Your task to perform on an android device: Clear the cart on walmart.com. Add "alienware area 51" to the cart on walmart.com Image 0: 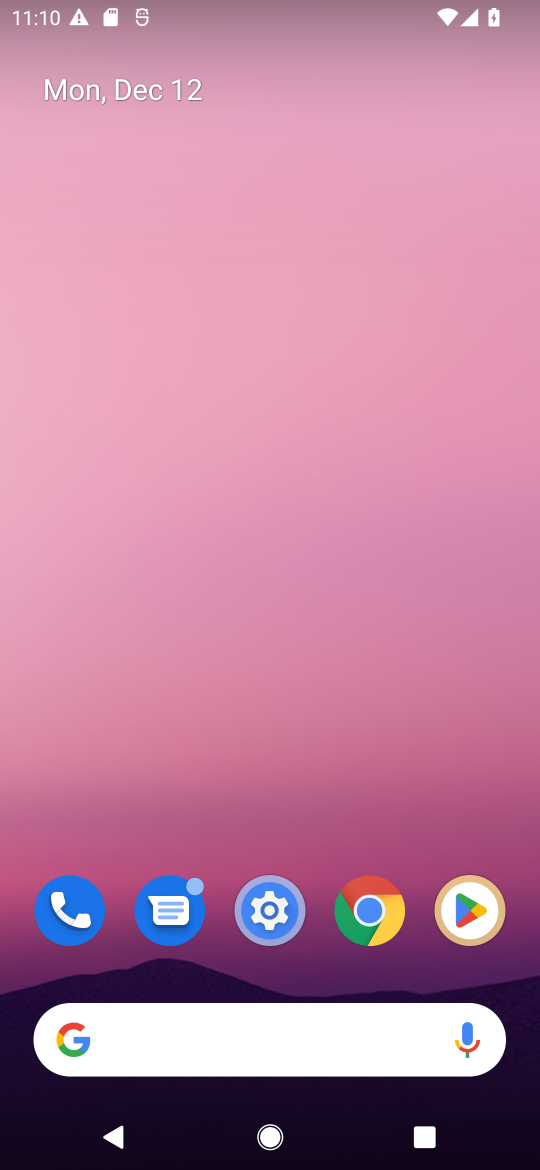
Step 0: click (371, 911)
Your task to perform on an android device: Clear the cart on walmart.com. Add "alienware area 51" to the cart on walmart.com Image 1: 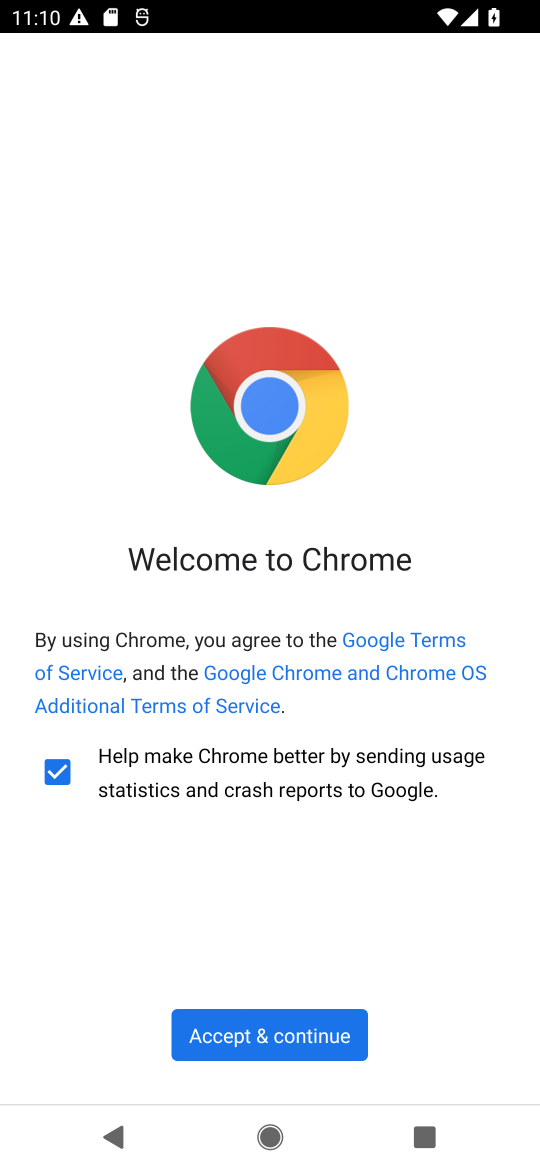
Step 1: click (269, 1050)
Your task to perform on an android device: Clear the cart on walmart.com. Add "alienware area 51" to the cart on walmart.com Image 2: 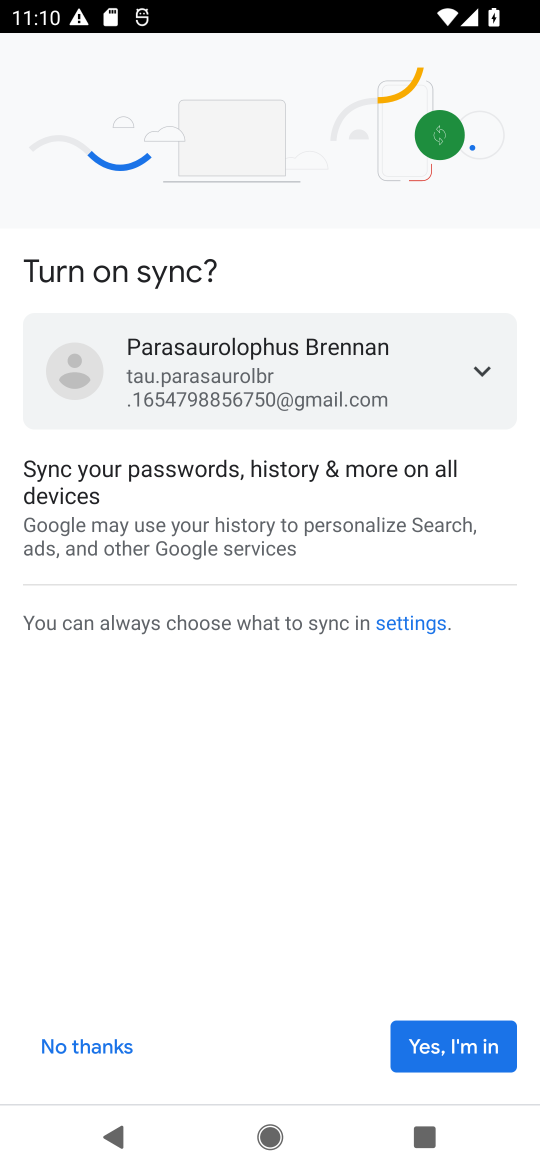
Step 2: click (420, 1046)
Your task to perform on an android device: Clear the cart on walmart.com. Add "alienware area 51" to the cart on walmart.com Image 3: 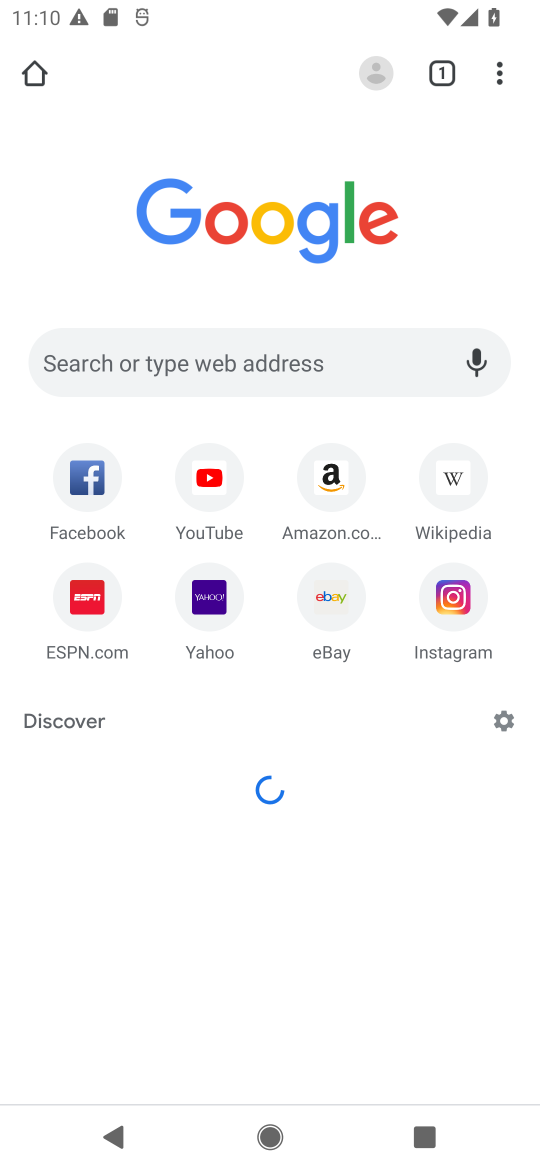
Step 3: click (292, 357)
Your task to perform on an android device: Clear the cart on walmart.com. Add "alienware area 51" to the cart on walmart.com Image 4: 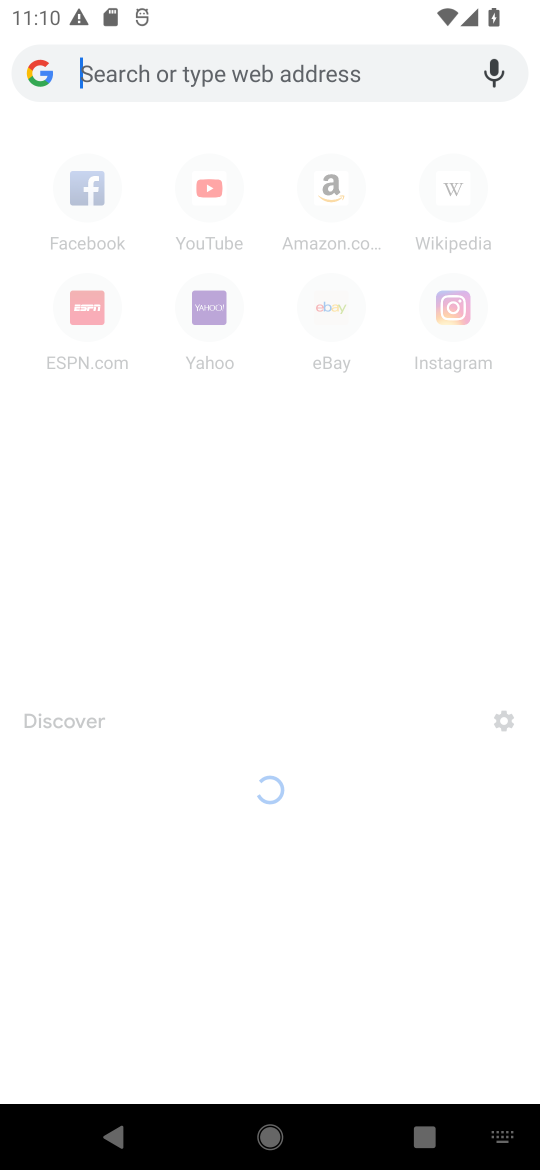
Step 4: type "walmart"
Your task to perform on an android device: Clear the cart on walmart.com. Add "alienware area 51" to the cart on walmart.com Image 5: 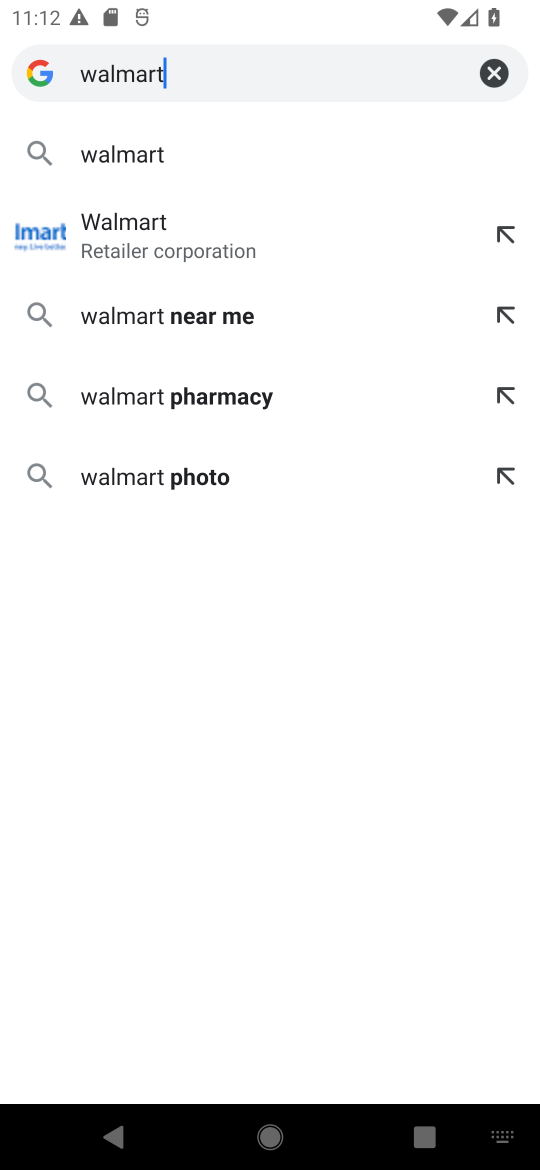
Step 5: click (165, 156)
Your task to perform on an android device: Clear the cart on walmart.com. Add "alienware area 51" to the cart on walmart.com Image 6: 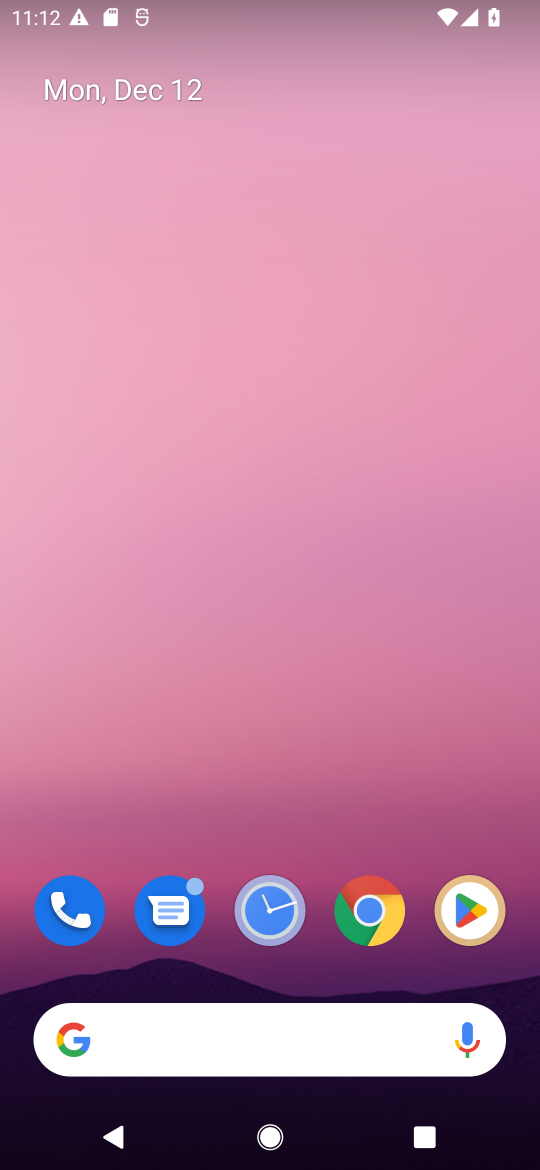
Step 6: click (381, 901)
Your task to perform on an android device: Clear the cart on walmart.com. Add "alienware area 51" to the cart on walmart.com Image 7: 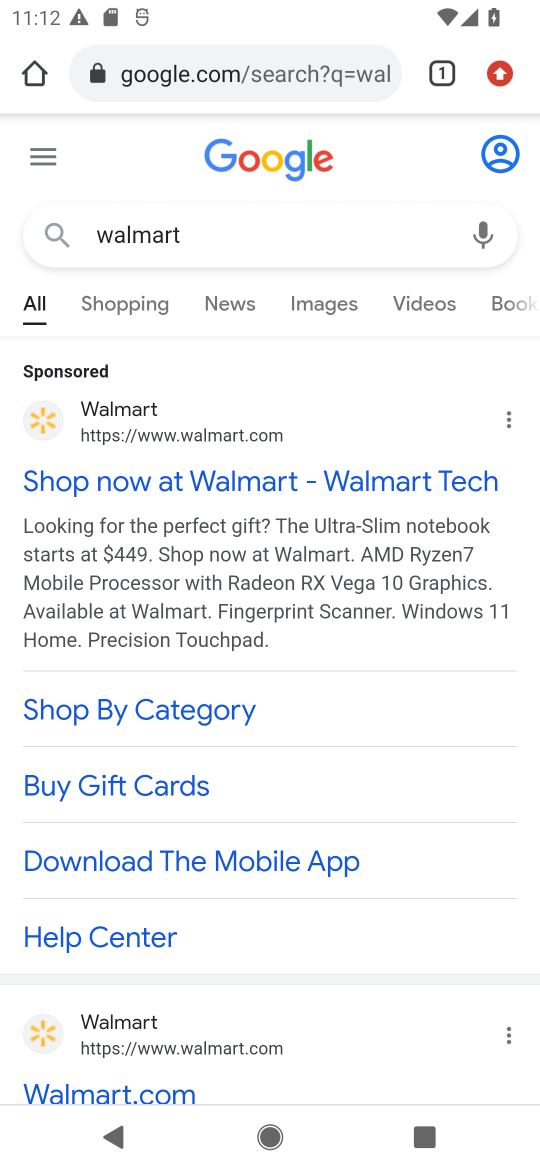
Step 7: click (140, 481)
Your task to perform on an android device: Clear the cart on walmart.com. Add "alienware area 51" to the cart on walmart.com Image 8: 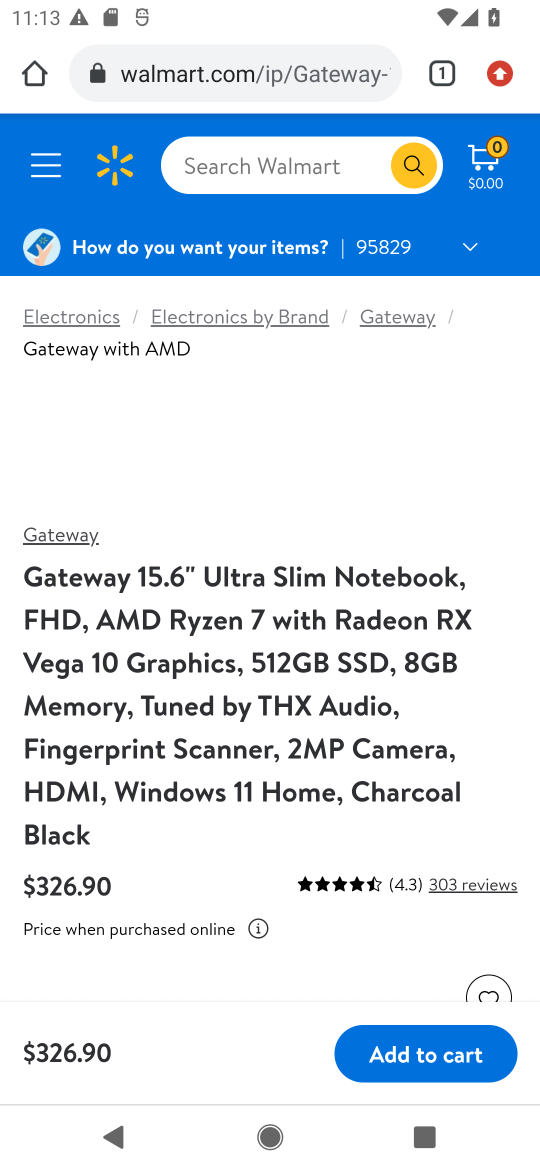
Step 8: click (230, 153)
Your task to perform on an android device: Clear the cart on walmart.com. Add "alienware area 51" to the cart on walmart.com Image 9: 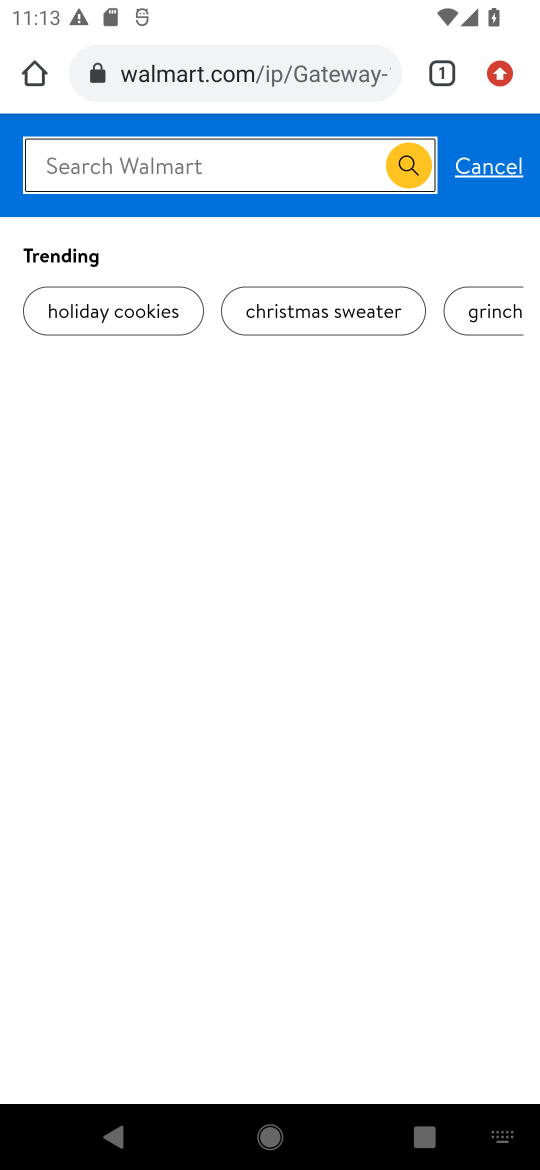
Step 9: type "alienware area 51"
Your task to perform on an android device: Clear the cart on walmart.com. Add "alienware area 51" to the cart on walmart.com Image 10: 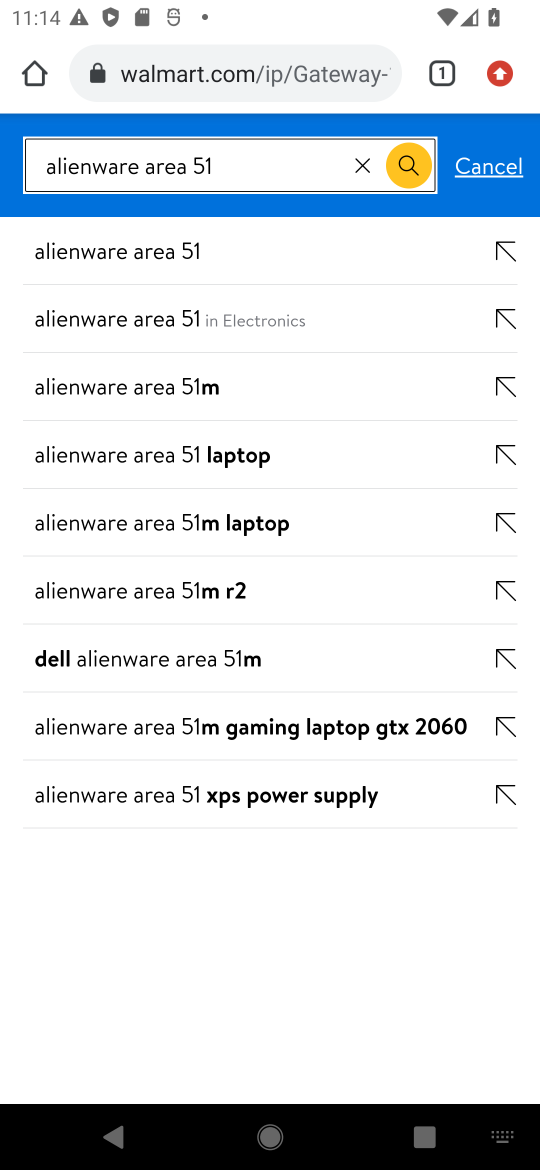
Step 10: click (209, 248)
Your task to perform on an android device: Clear the cart on walmart.com. Add "alienware area 51" to the cart on walmart.com Image 11: 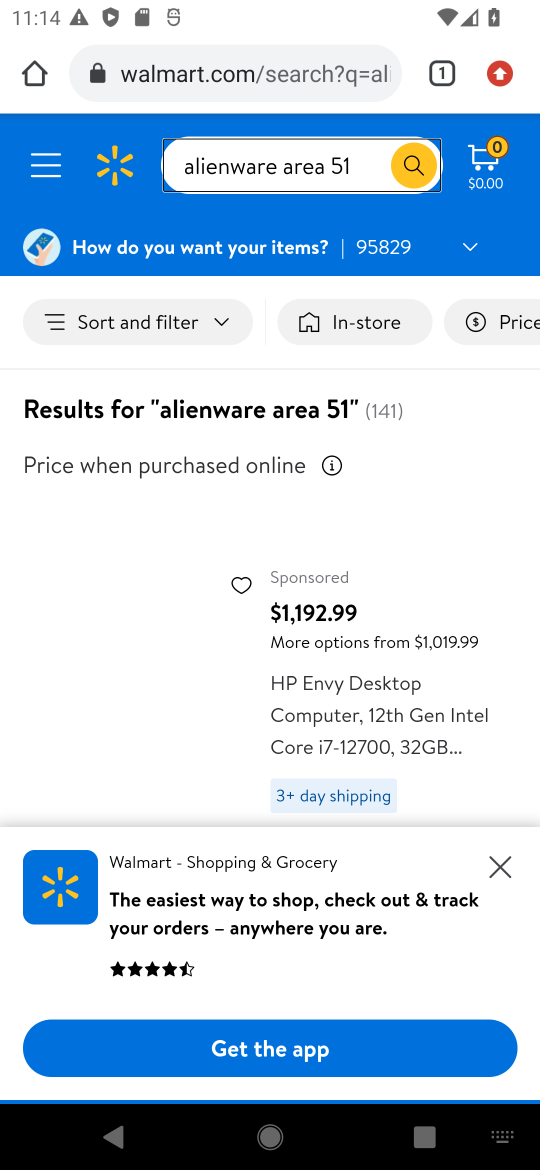
Step 11: task complete